Your task to perform on an android device: turn on the 24-hour format for clock Image 0: 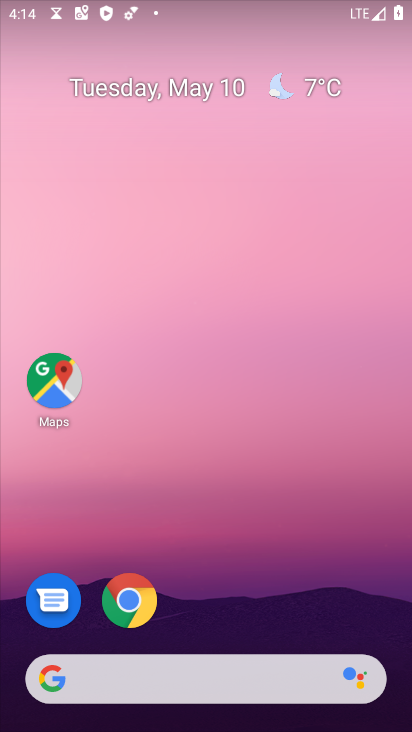
Step 0: drag from (277, 564) to (312, 293)
Your task to perform on an android device: turn on the 24-hour format for clock Image 1: 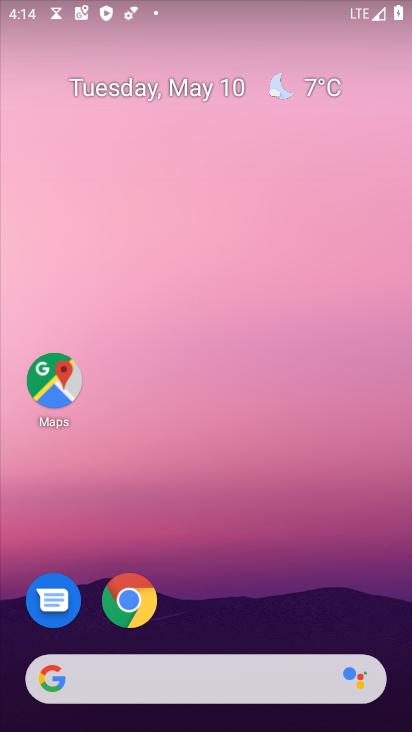
Step 1: drag from (258, 571) to (194, 116)
Your task to perform on an android device: turn on the 24-hour format for clock Image 2: 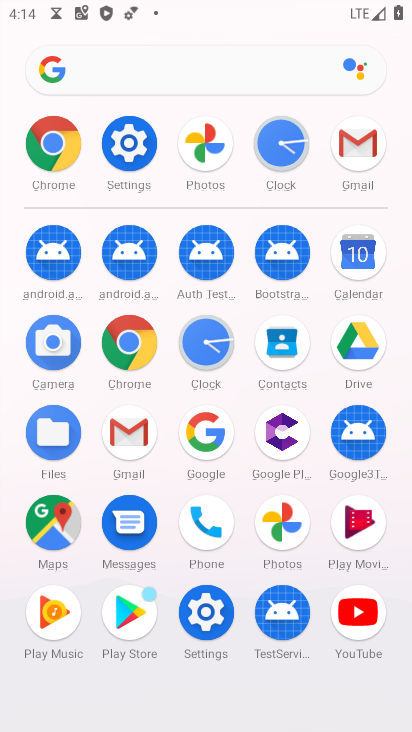
Step 2: click (134, 142)
Your task to perform on an android device: turn on the 24-hour format for clock Image 3: 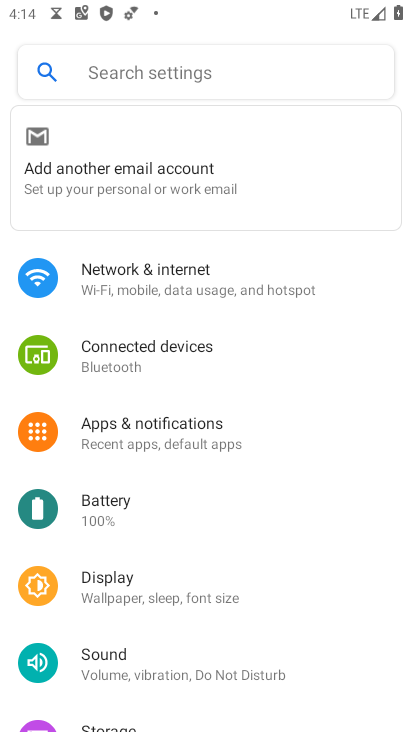
Step 3: drag from (184, 524) to (191, 256)
Your task to perform on an android device: turn on the 24-hour format for clock Image 4: 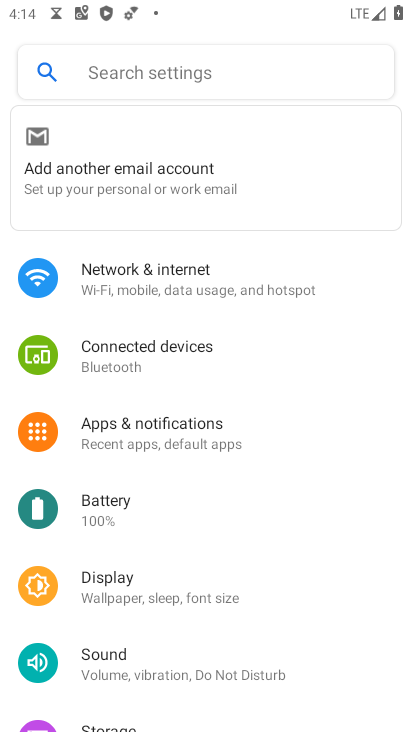
Step 4: drag from (155, 646) to (288, 198)
Your task to perform on an android device: turn on the 24-hour format for clock Image 5: 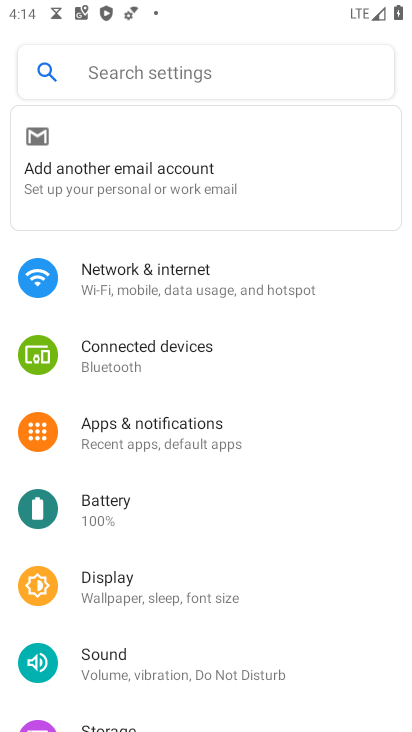
Step 5: drag from (273, 626) to (278, 364)
Your task to perform on an android device: turn on the 24-hour format for clock Image 6: 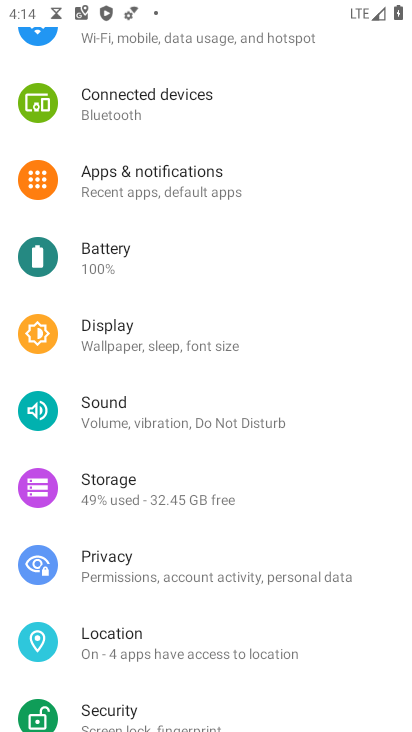
Step 6: drag from (276, 606) to (271, 327)
Your task to perform on an android device: turn on the 24-hour format for clock Image 7: 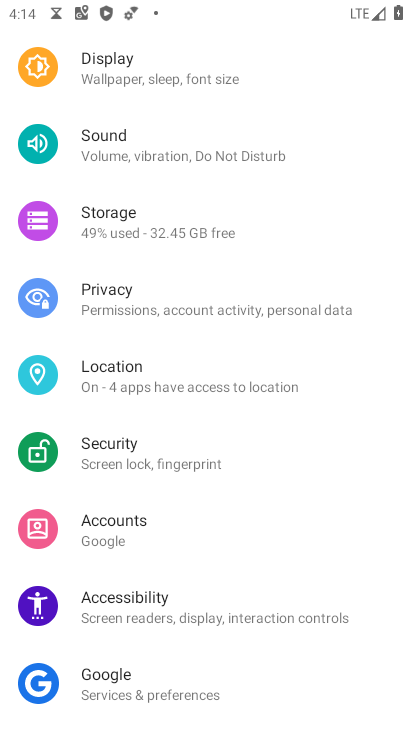
Step 7: drag from (258, 230) to (211, 713)
Your task to perform on an android device: turn on the 24-hour format for clock Image 8: 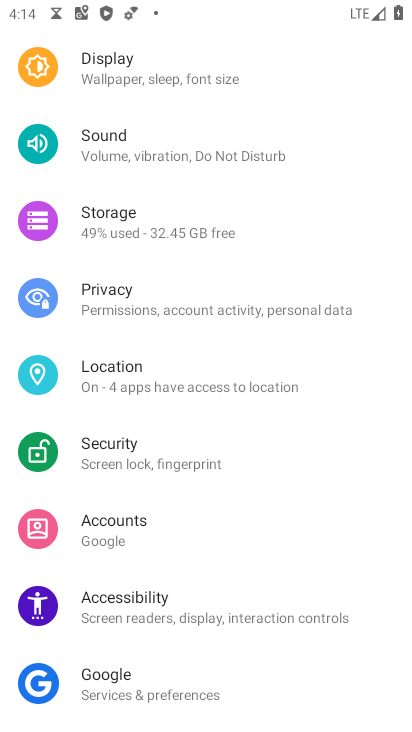
Step 8: drag from (281, 111) to (282, 603)
Your task to perform on an android device: turn on the 24-hour format for clock Image 9: 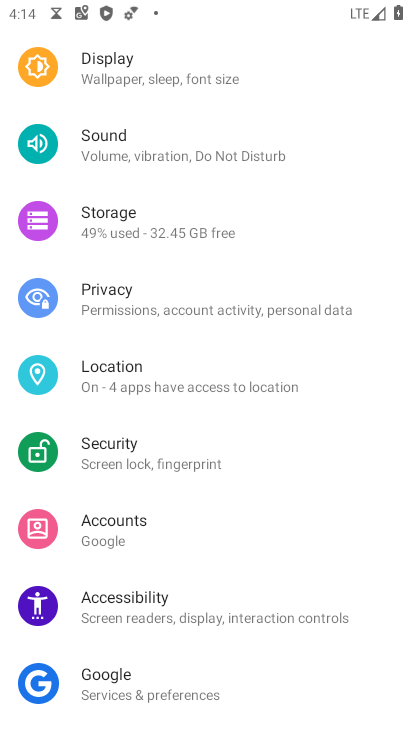
Step 9: drag from (294, 98) to (302, 655)
Your task to perform on an android device: turn on the 24-hour format for clock Image 10: 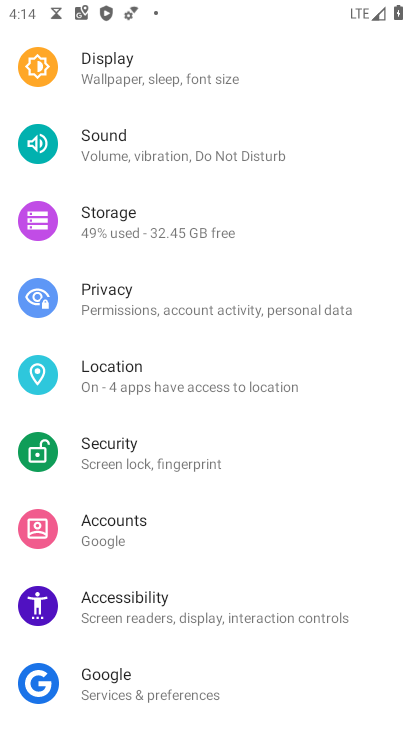
Step 10: drag from (328, 152) to (275, 729)
Your task to perform on an android device: turn on the 24-hour format for clock Image 11: 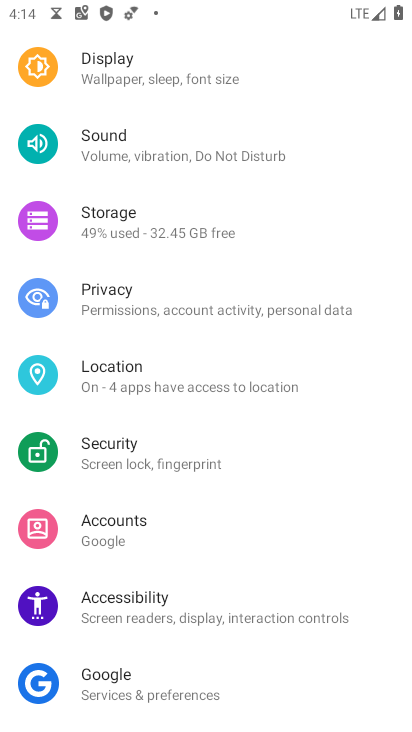
Step 11: press back button
Your task to perform on an android device: turn on the 24-hour format for clock Image 12: 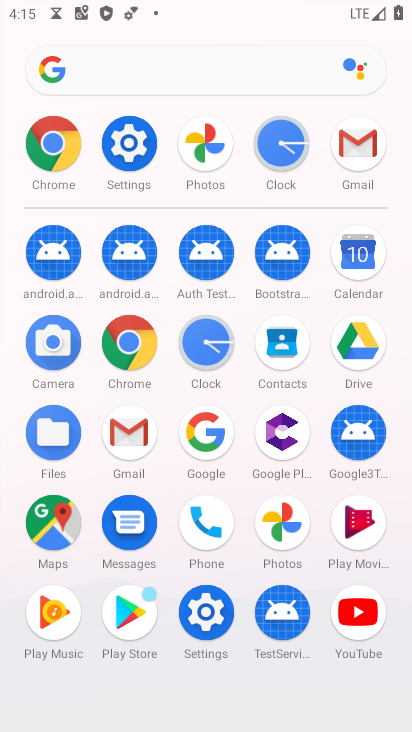
Step 12: click (116, 137)
Your task to perform on an android device: turn on the 24-hour format for clock Image 13: 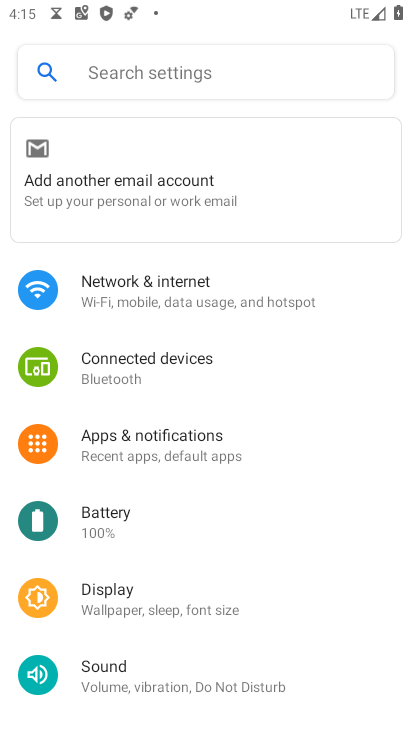
Step 13: click (125, 69)
Your task to perform on an android device: turn on the 24-hour format for clock Image 14: 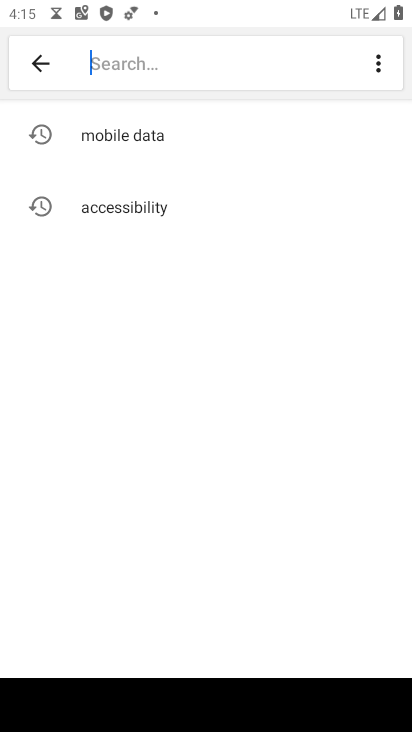
Step 14: type "date and time "
Your task to perform on an android device: turn on the 24-hour format for clock Image 15: 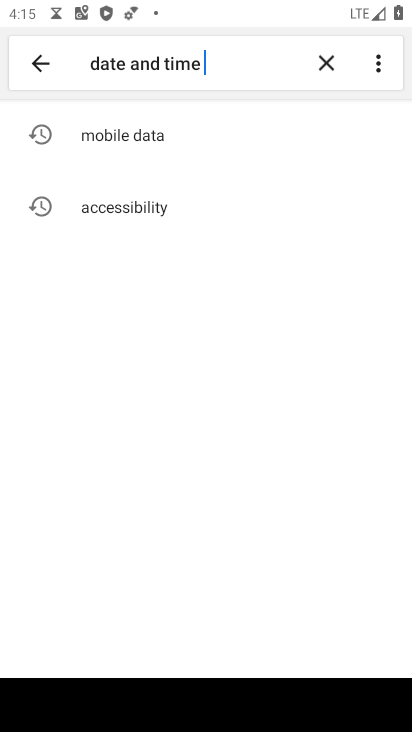
Step 15: type ""
Your task to perform on an android device: turn on the 24-hour format for clock Image 16: 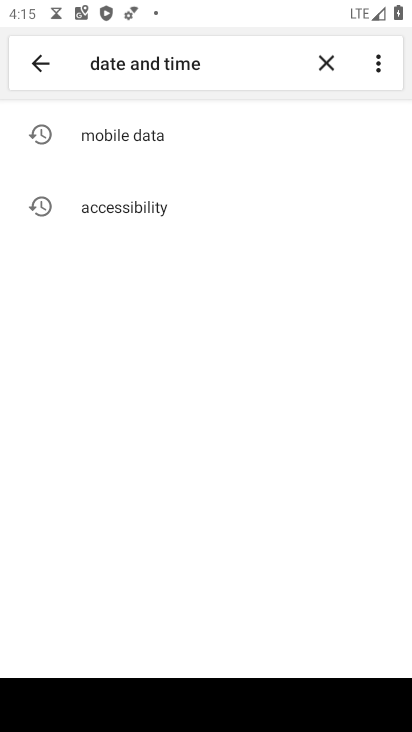
Step 16: click (223, 64)
Your task to perform on an android device: turn on the 24-hour format for clock Image 17: 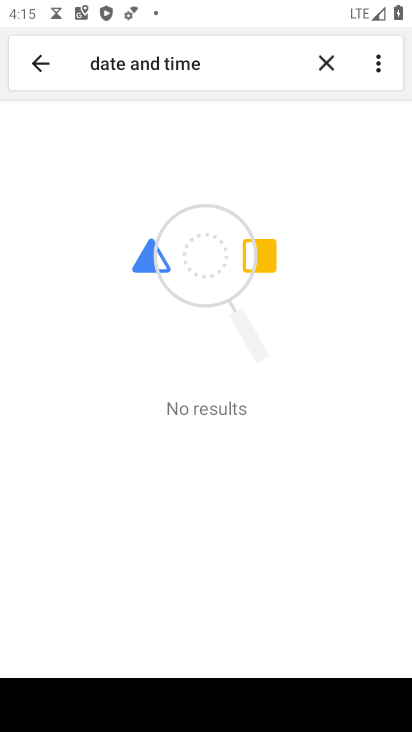
Step 17: drag from (156, 4) to (27, 720)
Your task to perform on an android device: turn on the 24-hour format for clock Image 18: 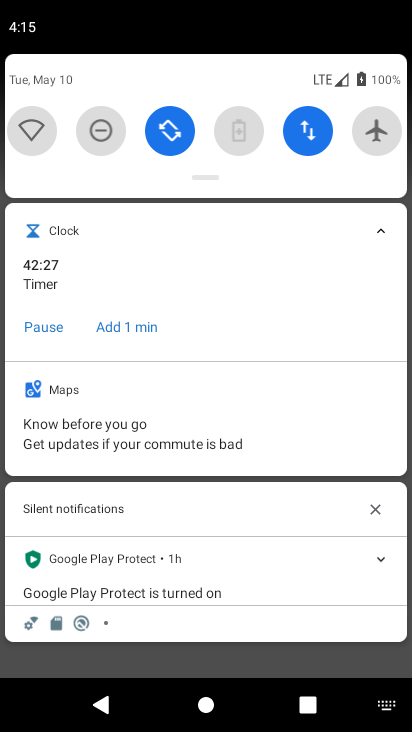
Step 18: click (21, 31)
Your task to perform on an android device: turn on the 24-hour format for clock Image 19: 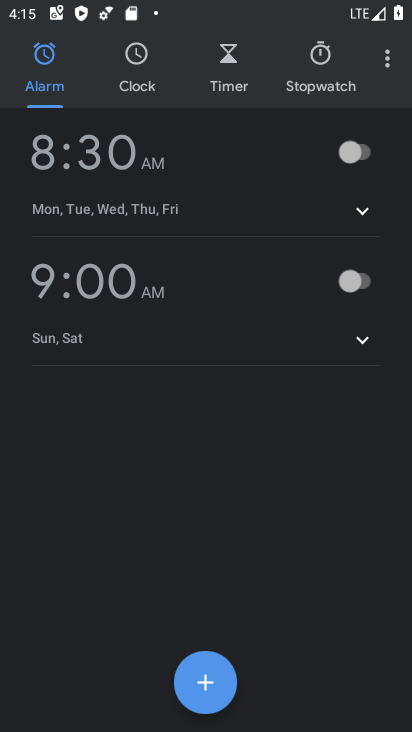
Step 19: click (391, 64)
Your task to perform on an android device: turn on the 24-hour format for clock Image 20: 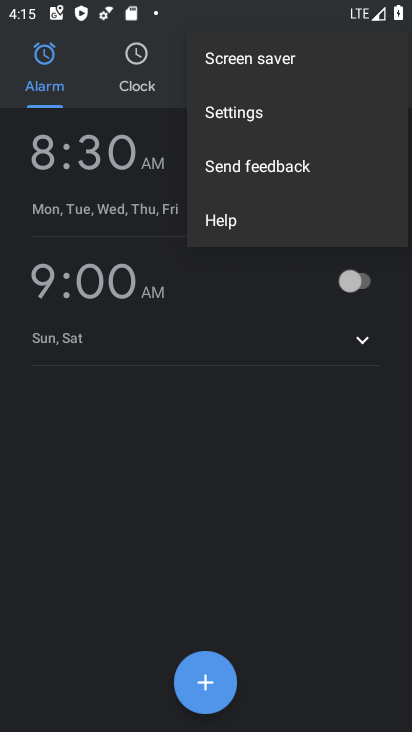
Step 20: click (144, 67)
Your task to perform on an android device: turn on the 24-hour format for clock Image 21: 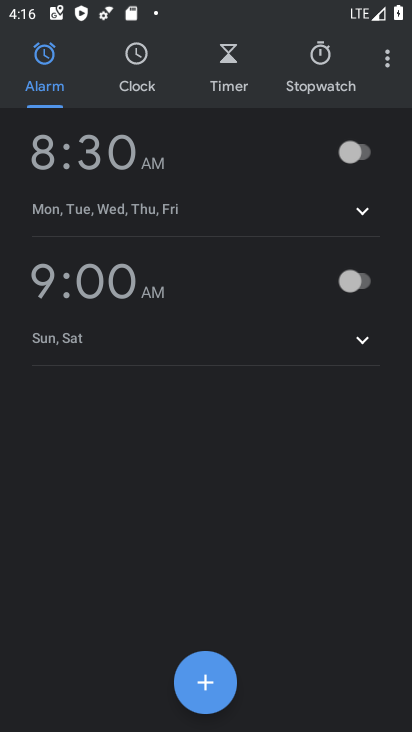
Step 21: click (130, 86)
Your task to perform on an android device: turn on the 24-hour format for clock Image 22: 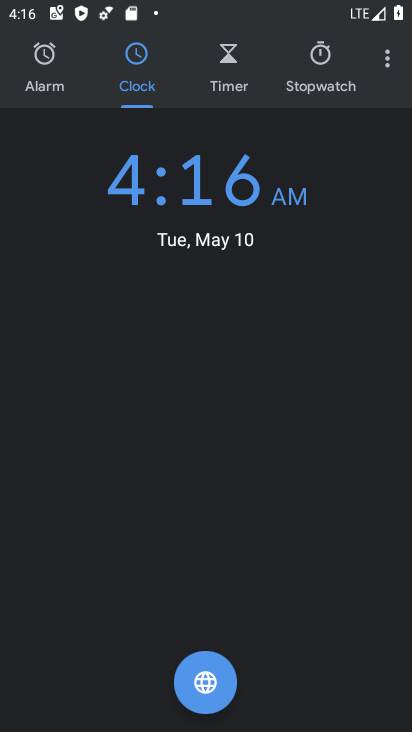
Step 22: click (375, 65)
Your task to perform on an android device: turn on the 24-hour format for clock Image 23: 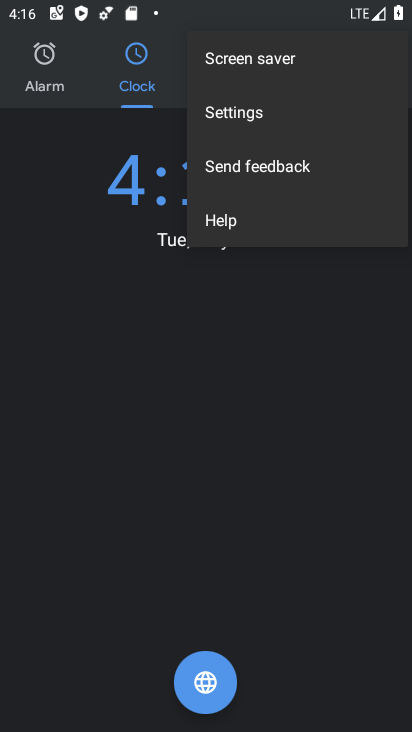
Step 23: click (355, 120)
Your task to perform on an android device: turn on the 24-hour format for clock Image 24: 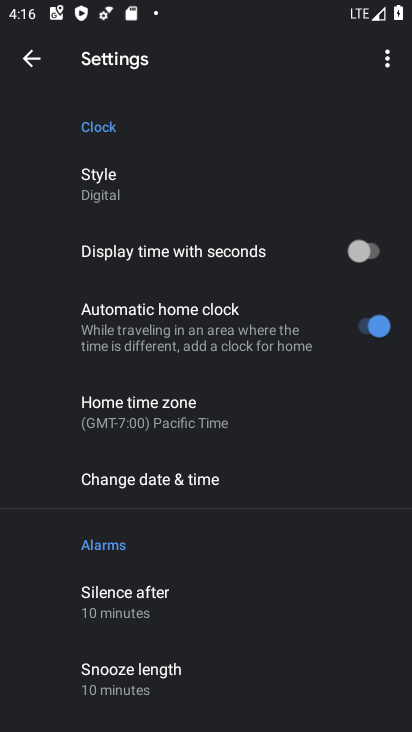
Step 24: task complete